Your task to perform on an android device: toggle show notifications on the lock screen Image 0: 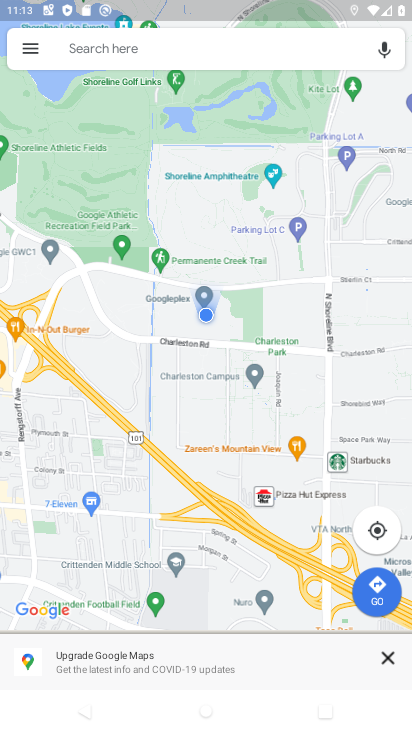
Step 0: press home button
Your task to perform on an android device: toggle show notifications on the lock screen Image 1: 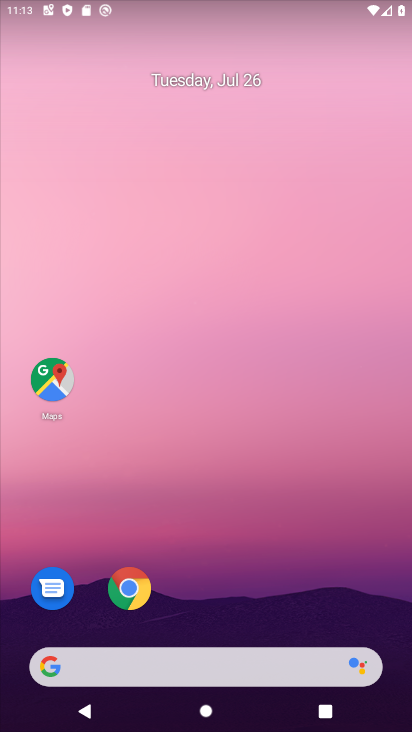
Step 1: drag from (263, 575) to (321, 16)
Your task to perform on an android device: toggle show notifications on the lock screen Image 2: 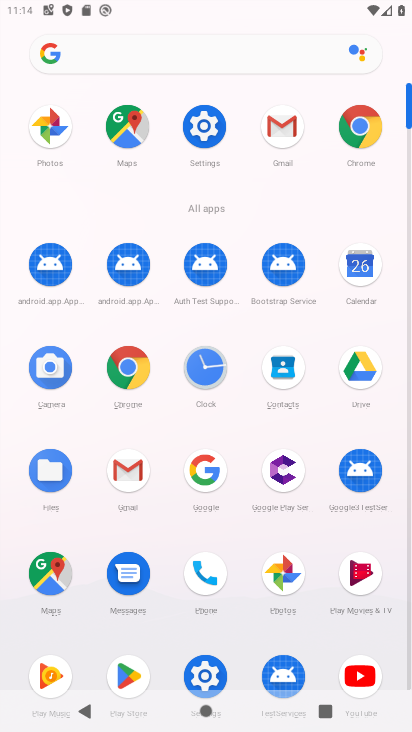
Step 2: click (202, 668)
Your task to perform on an android device: toggle show notifications on the lock screen Image 3: 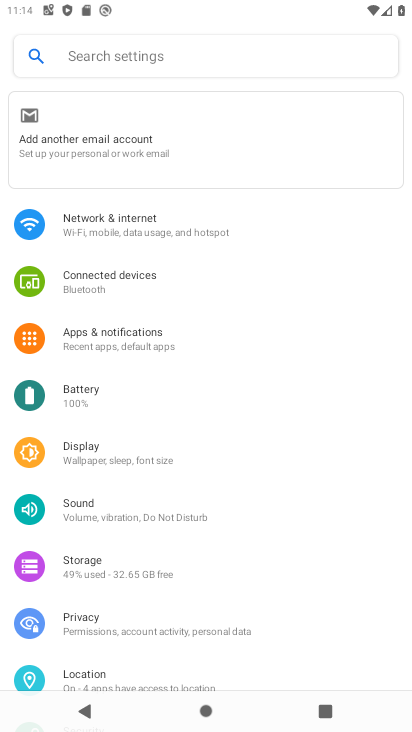
Step 3: drag from (190, 606) to (249, 315)
Your task to perform on an android device: toggle show notifications on the lock screen Image 4: 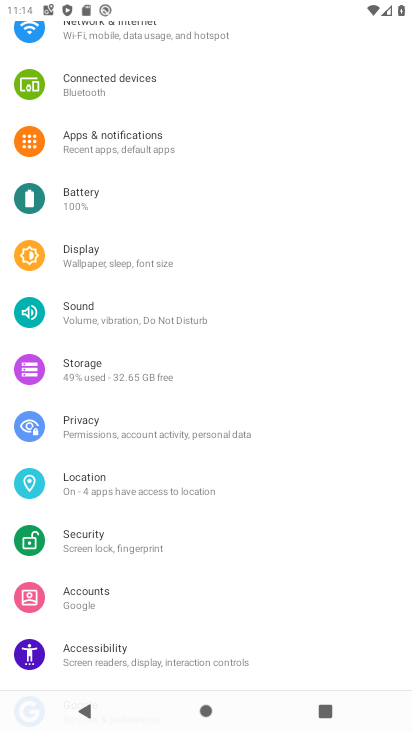
Step 4: click (148, 143)
Your task to perform on an android device: toggle show notifications on the lock screen Image 5: 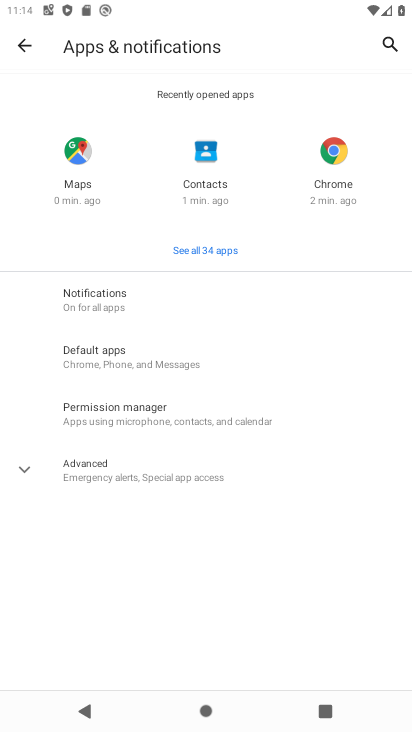
Step 5: click (146, 299)
Your task to perform on an android device: toggle show notifications on the lock screen Image 6: 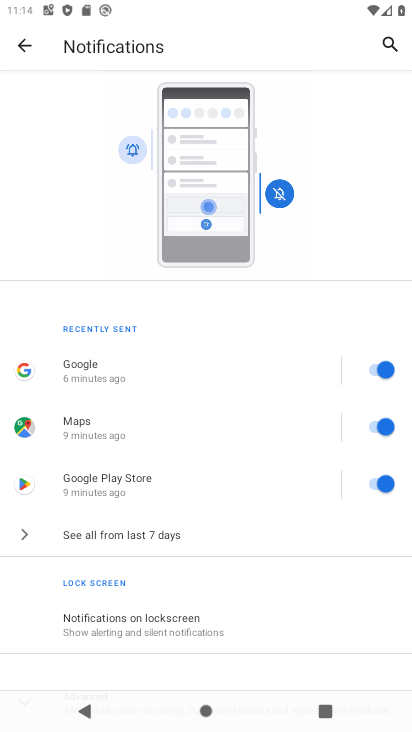
Step 6: click (191, 627)
Your task to perform on an android device: toggle show notifications on the lock screen Image 7: 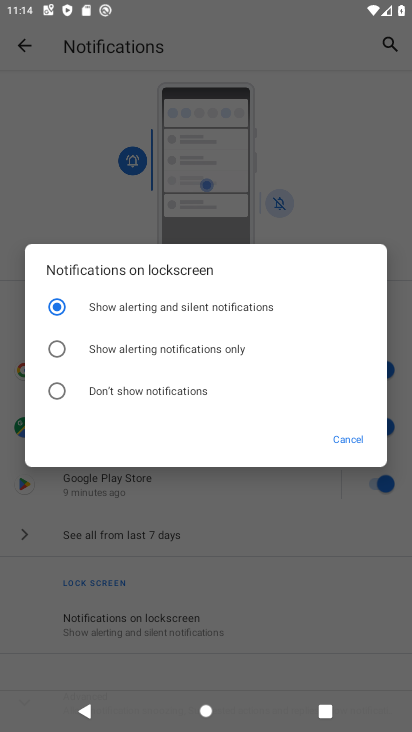
Step 7: click (182, 394)
Your task to perform on an android device: toggle show notifications on the lock screen Image 8: 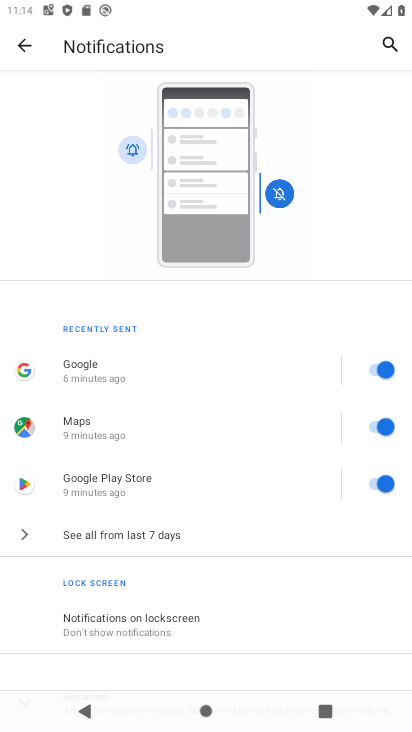
Step 8: task complete